Your task to perform on an android device: allow notifications from all sites in the chrome app Image 0: 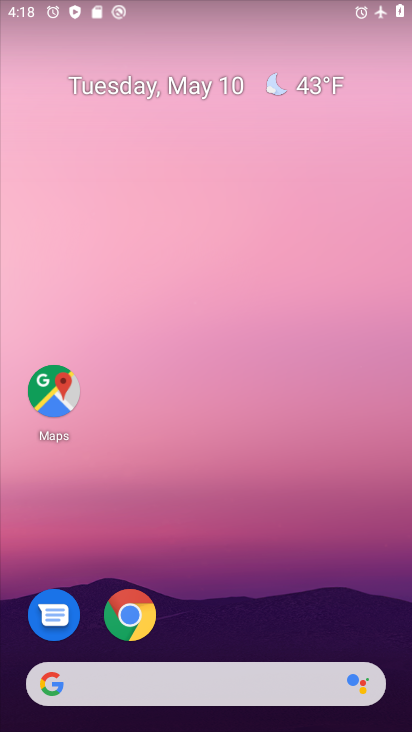
Step 0: drag from (252, 596) to (258, 0)
Your task to perform on an android device: allow notifications from all sites in the chrome app Image 1: 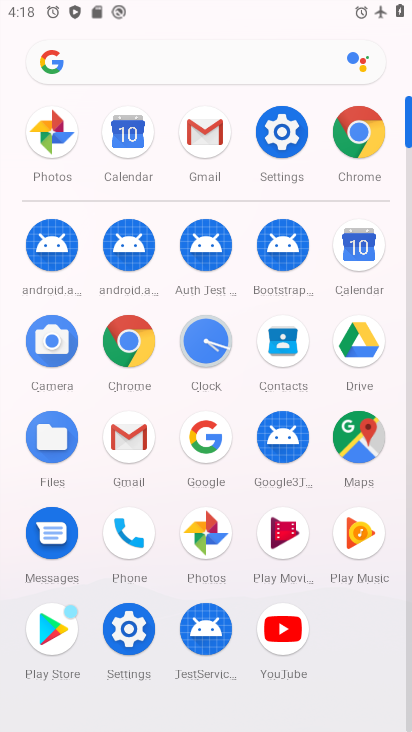
Step 1: click (130, 336)
Your task to perform on an android device: allow notifications from all sites in the chrome app Image 2: 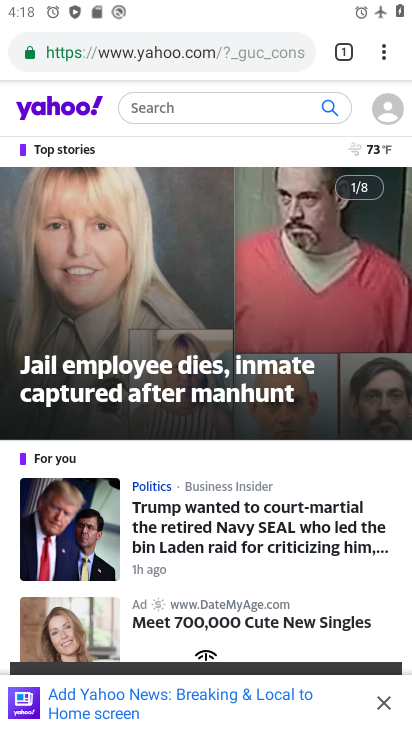
Step 2: drag from (387, 52) to (237, 644)
Your task to perform on an android device: allow notifications from all sites in the chrome app Image 3: 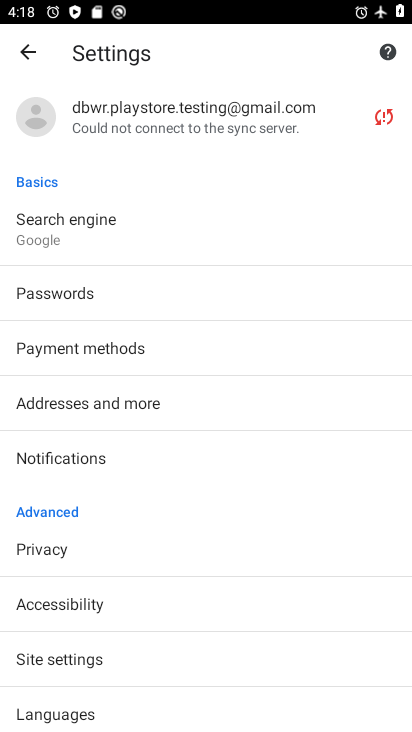
Step 3: drag from (170, 617) to (230, 251)
Your task to perform on an android device: allow notifications from all sites in the chrome app Image 4: 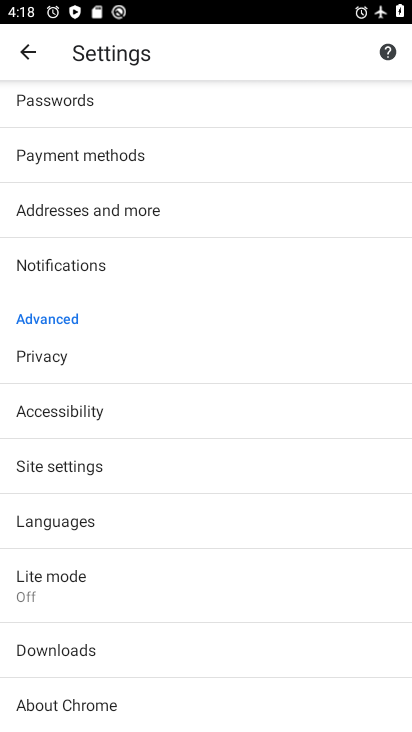
Step 4: click (108, 468)
Your task to perform on an android device: allow notifications from all sites in the chrome app Image 5: 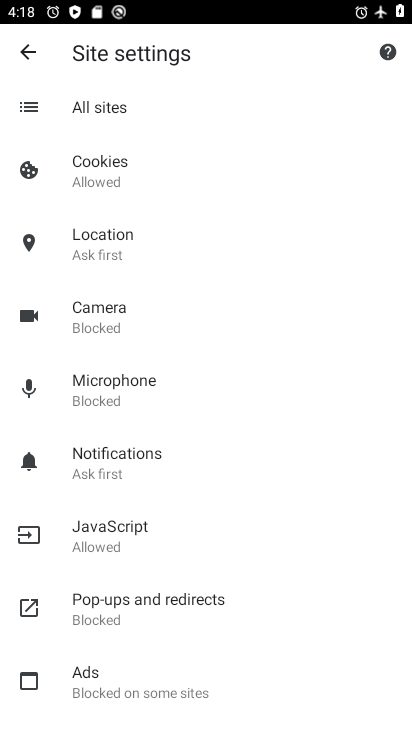
Step 5: click (108, 471)
Your task to perform on an android device: allow notifications from all sites in the chrome app Image 6: 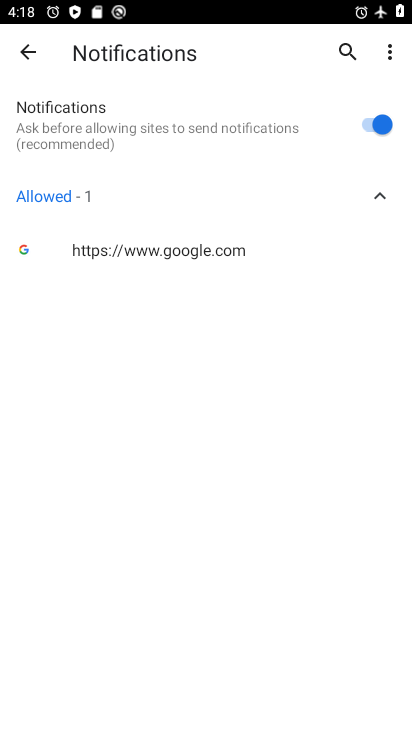
Step 6: task complete